Your task to perform on an android device: turn notification dots off Image 0: 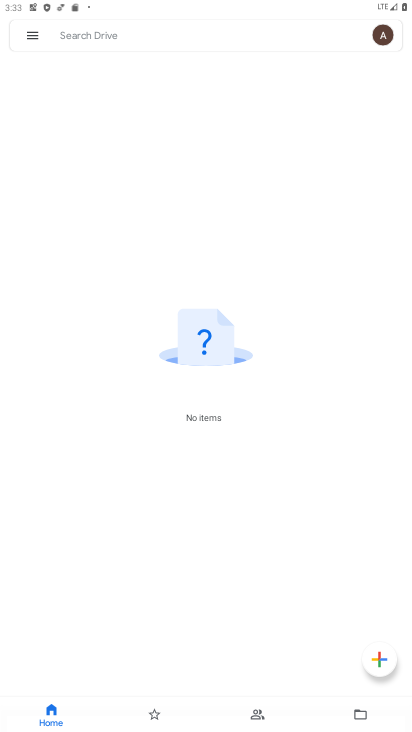
Step 0: press home button
Your task to perform on an android device: turn notification dots off Image 1: 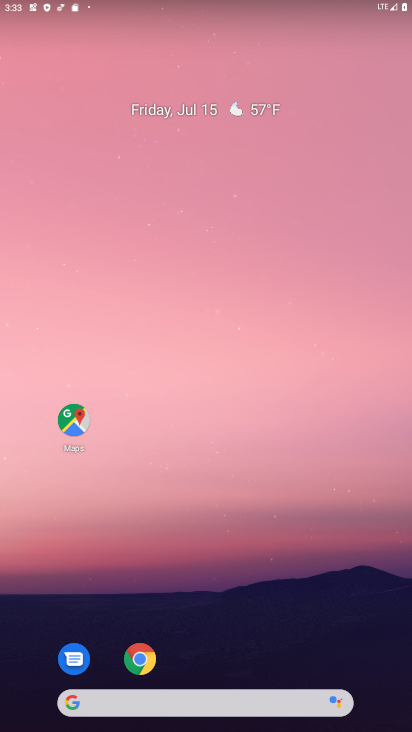
Step 1: drag from (192, 696) to (196, 306)
Your task to perform on an android device: turn notification dots off Image 2: 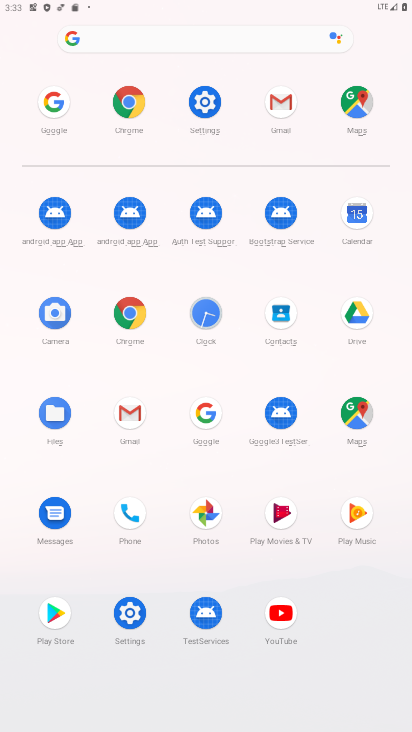
Step 2: click (207, 95)
Your task to perform on an android device: turn notification dots off Image 3: 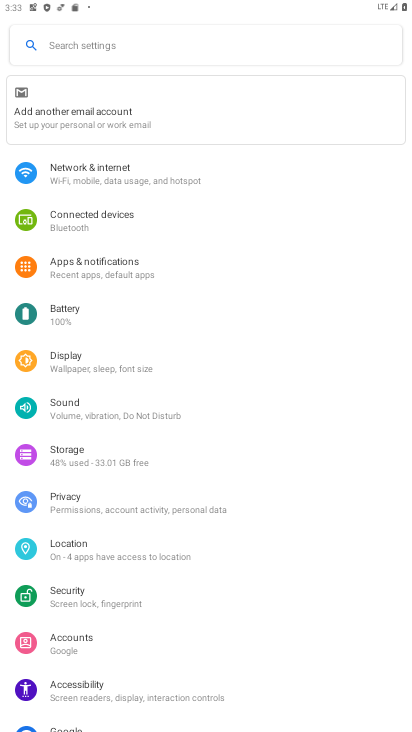
Step 3: click (105, 270)
Your task to perform on an android device: turn notification dots off Image 4: 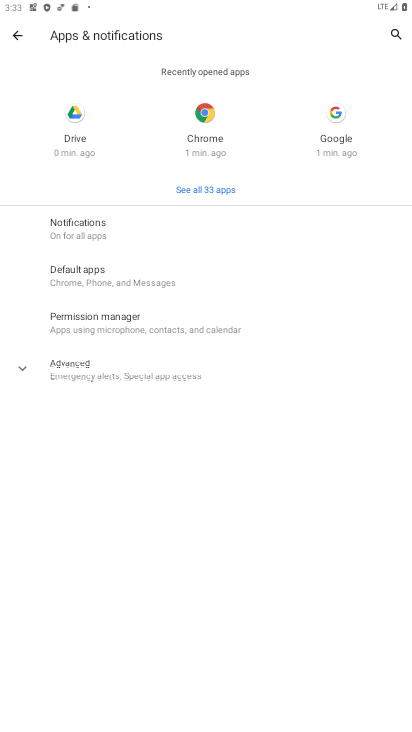
Step 4: click (93, 233)
Your task to perform on an android device: turn notification dots off Image 5: 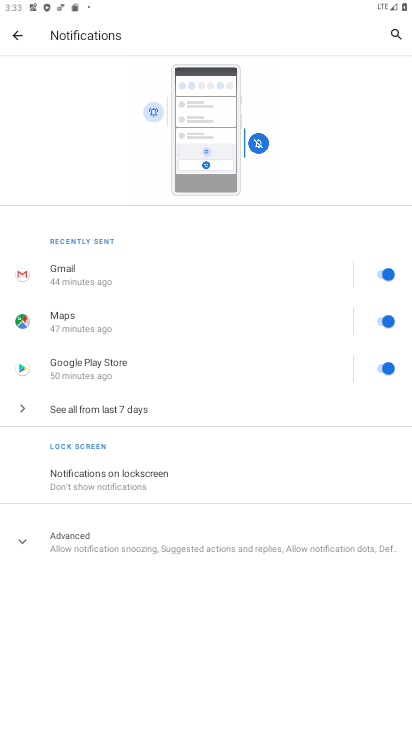
Step 5: click (64, 534)
Your task to perform on an android device: turn notification dots off Image 6: 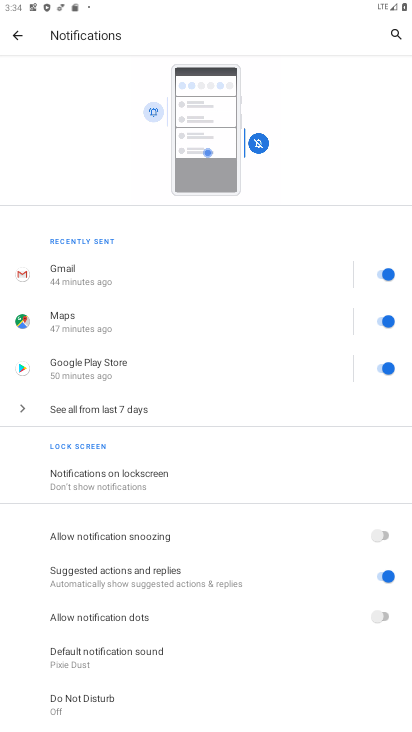
Step 6: task complete